Your task to perform on an android device: check battery use Image 0: 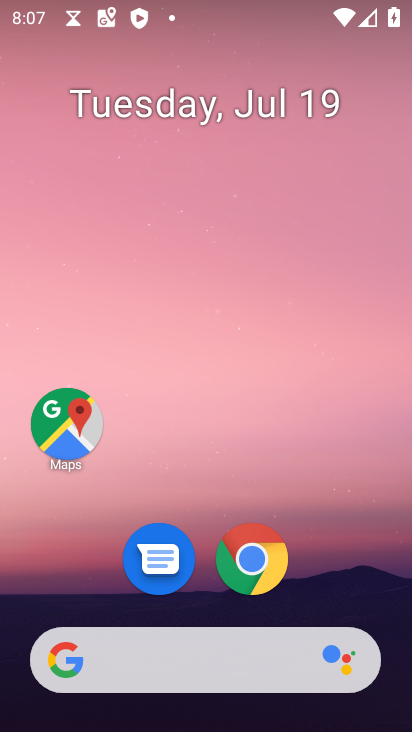
Step 0: drag from (104, 470) to (212, 1)
Your task to perform on an android device: check battery use Image 1: 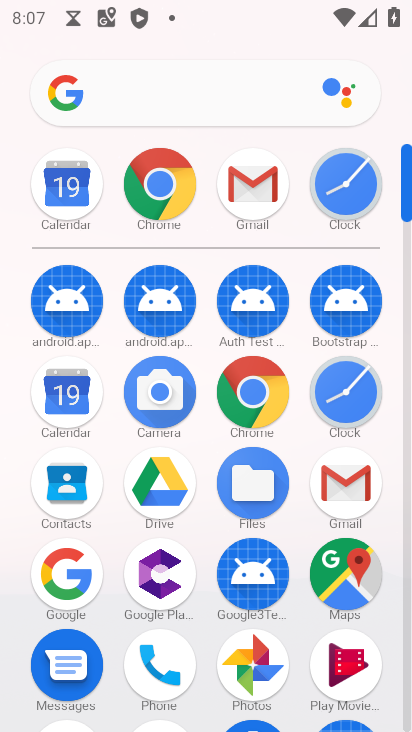
Step 1: drag from (203, 631) to (295, 160)
Your task to perform on an android device: check battery use Image 2: 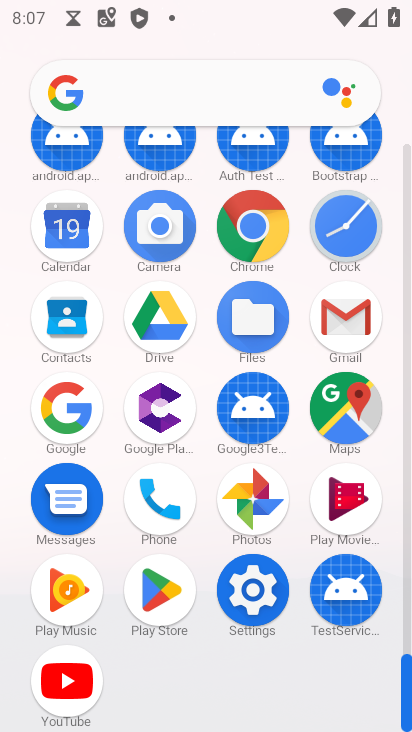
Step 2: click (261, 585)
Your task to perform on an android device: check battery use Image 3: 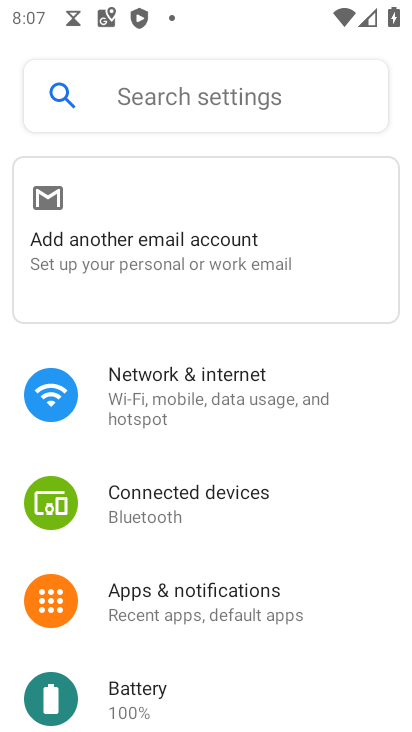
Step 3: click (162, 687)
Your task to perform on an android device: check battery use Image 4: 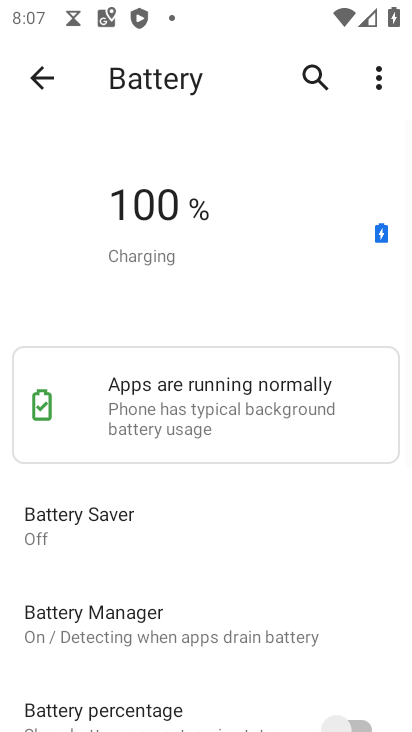
Step 4: click (387, 71)
Your task to perform on an android device: check battery use Image 5: 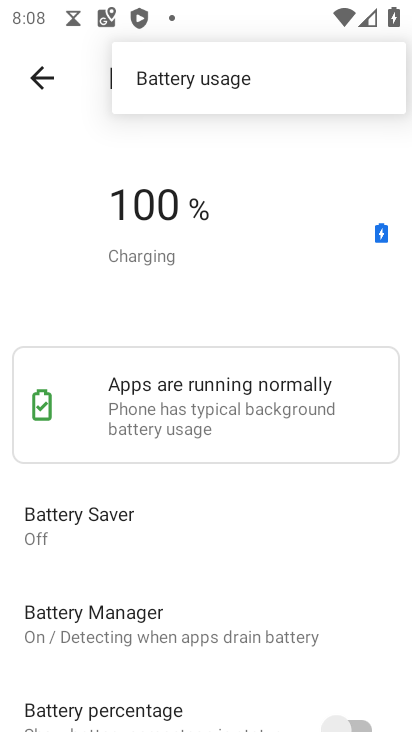
Step 5: click (249, 99)
Your task to perform on an android device: check battery use Image 6: 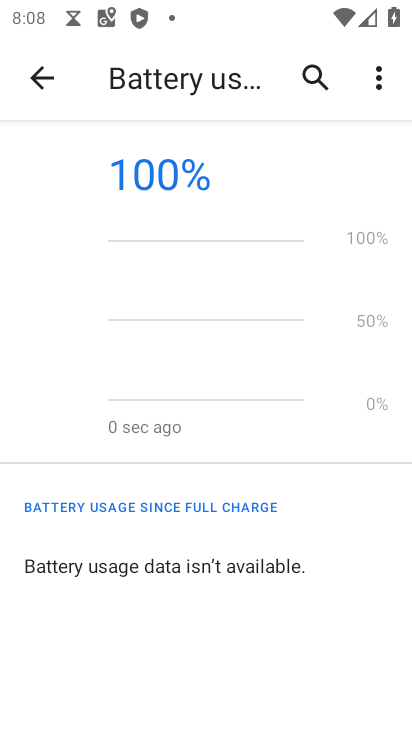
Step 6: task complete